Your task to perform on an android device: turn on bluetooth scan Image 0: 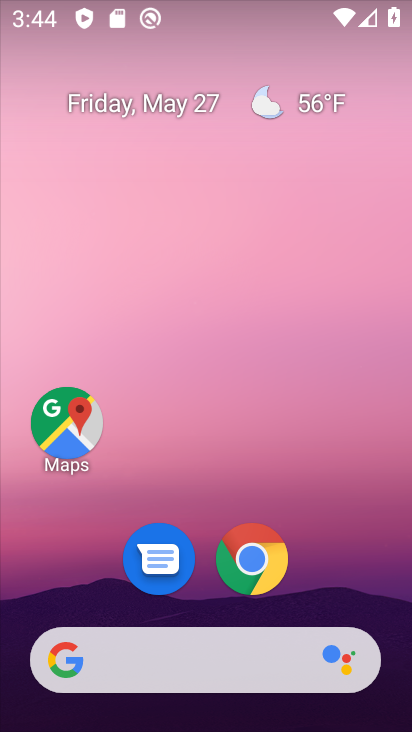
Step 0: drag from (38, 609) to (233, 167)
Your task to perform on an android device: turn on bluetooth scan Image 1: 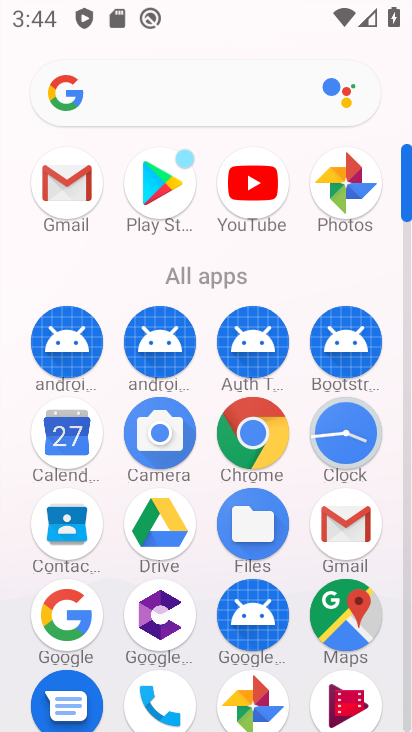
Step 1: drag from (134, 546) to (262, 288)
Your task to perform on an android device: turn on bluetooth scan Image 2: 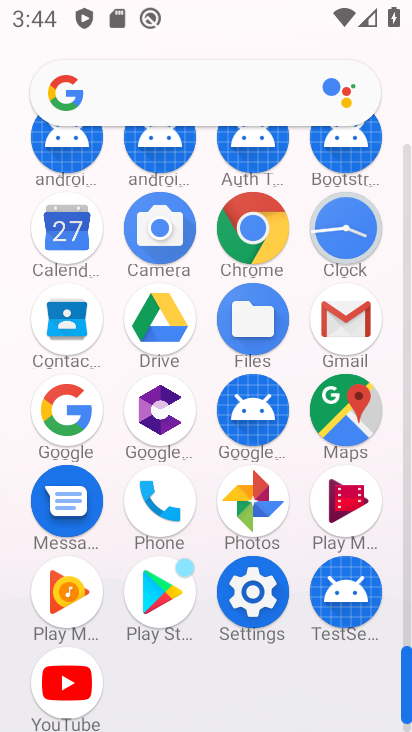
Step 2: click (263, 603)
Your task to perform on an android device: turn on bluetooth scan Image 3: 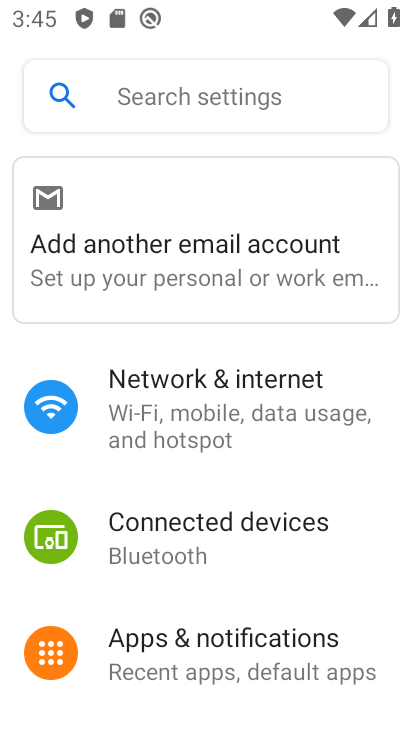
Step 3: click (247, 540)
Your task to perform on an android device: turn on bluetooth scan Image 4: 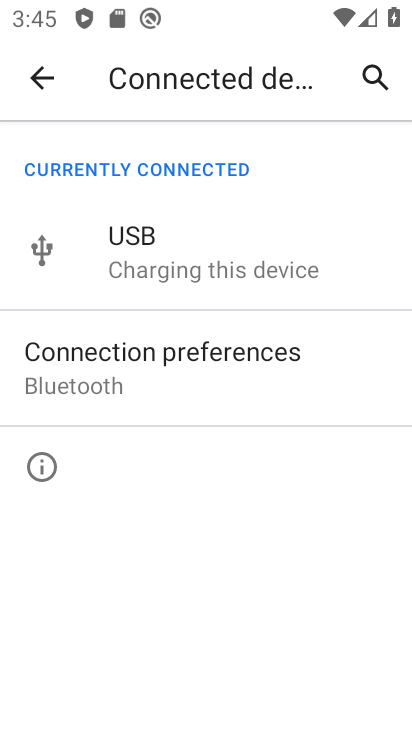
Step 4: click (192, 357)
Your task to perform on an android device: turn on bluetooth scan Image 5: 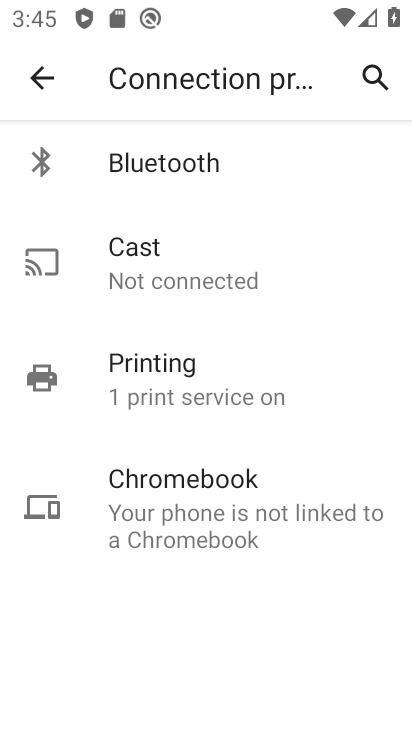
Step 5: click (301, 174)
Your task to perform on an android device: turn on bluetooth scan Image 6: 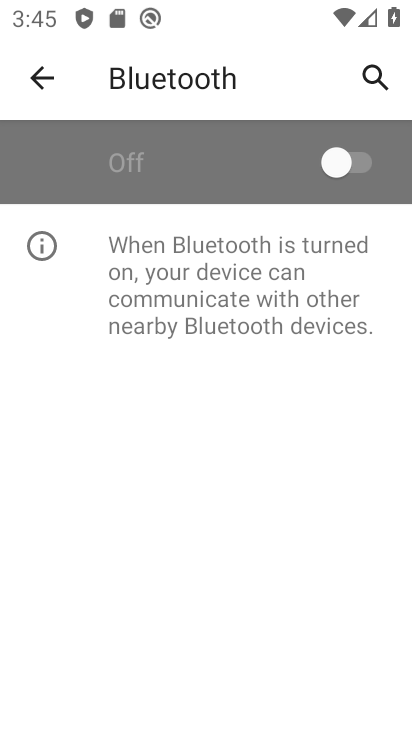
Step 6: click (372, 157)
Your task to perform on an android device: turn on bluetooth scan Image 7: 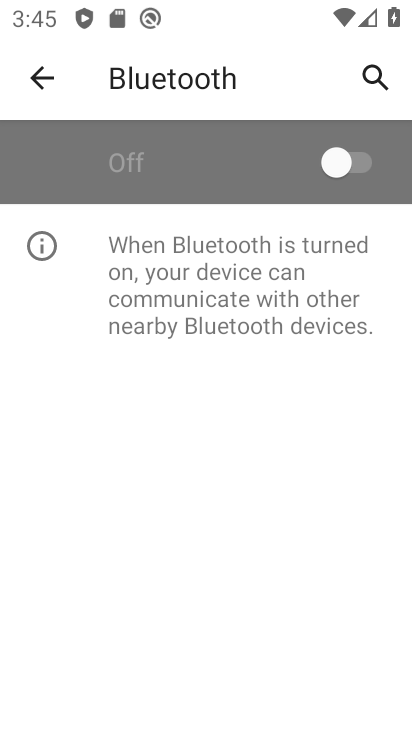
Step 7: click (373, 154)
Your task to perform on an android device: turn on bluetooth scan Image 8: 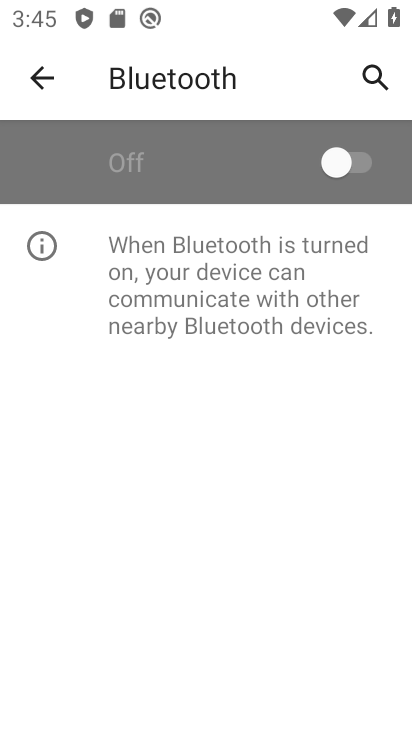
Step 8: click (373, 154)
Your task to perform on an android device: turn on bluetooth scan Image 9: 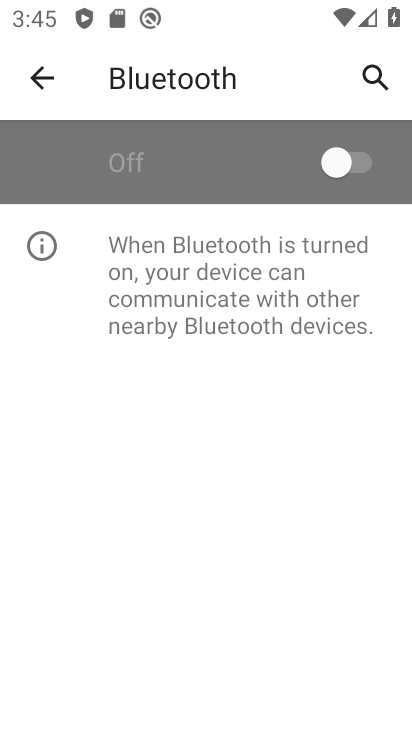
Step 9: task complete